Your task to perform on an android device: turn pop-ups off in chrome Image 0: 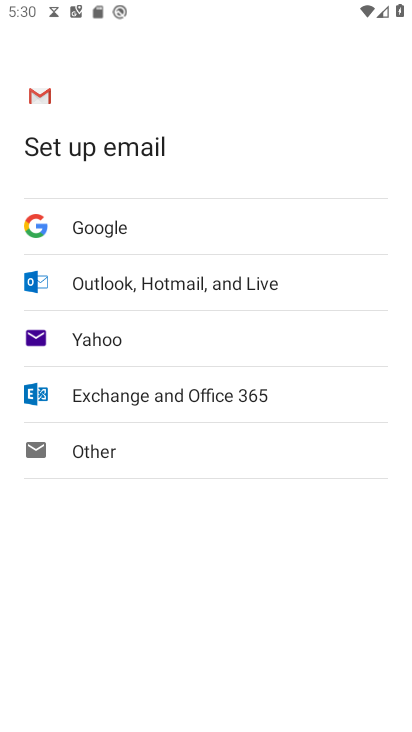
Step 0: press home button
Your task to perform on an android device: turn pop-ups off in chrome Image 1: 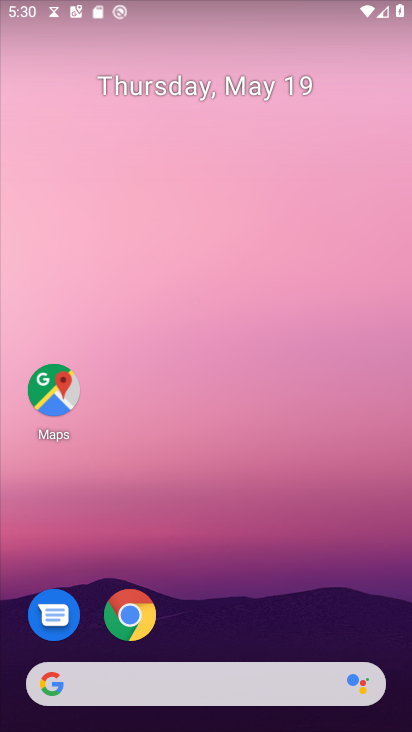
Step 1: drag from (259, 658) to (266, 14)
Your task to perform on an android device: turn pop-ups off in chrome Image 2: 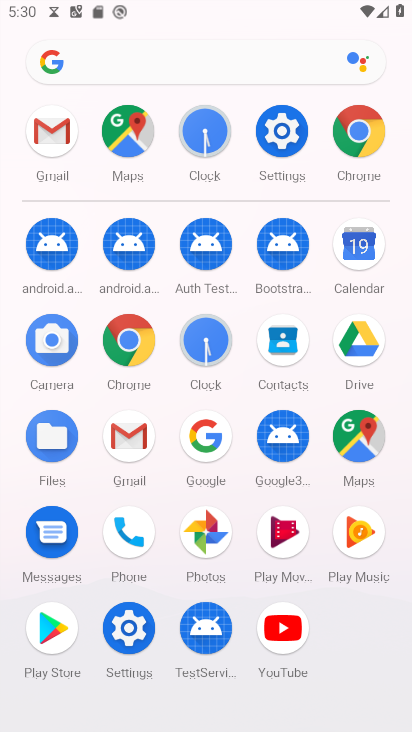
Step 2: click (124, 331)
Your task to perform on an android device: turn pop-ups off in chrome Image 3: 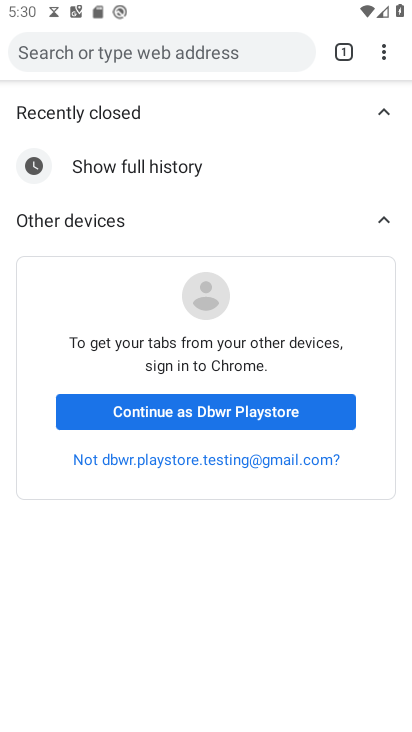
Step 3: drag from (380, 50) to (258, 439)
Your task to perform on an android device: turn pop-ups off in chrome Image 4: 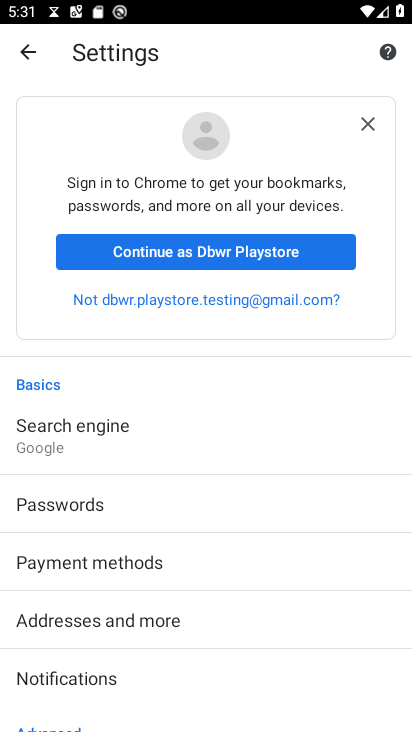
Step 4: drag from (132, 695) to (164, 181)
Your task to perform on an android device: turn pop-ups off in chrome Image 5: 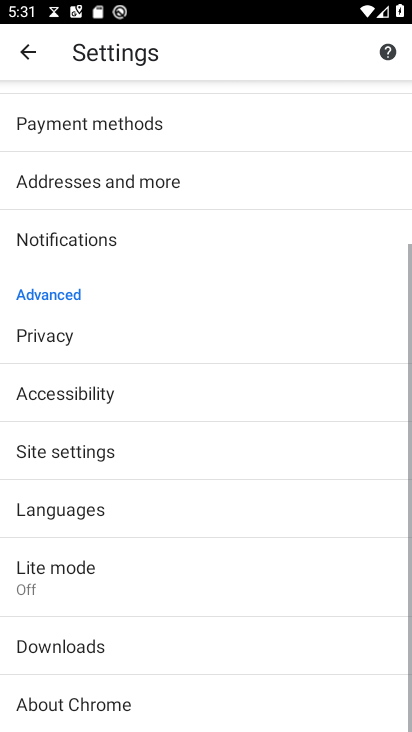
Step 5: click (89, 453)
Your task to perform on an android device: turn pop-ups off in chrome Image 6: 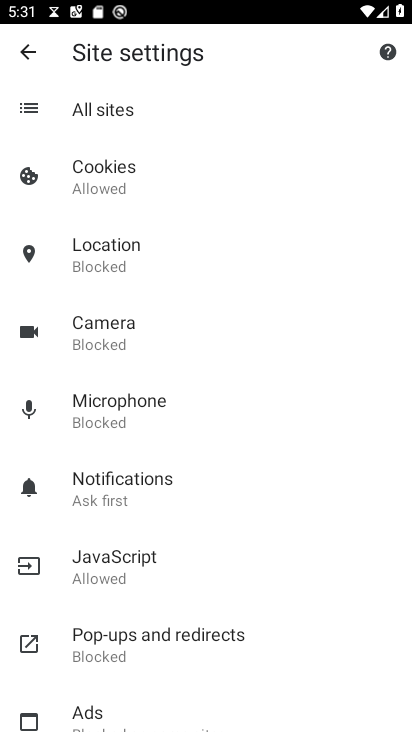
Step 6: click (158, 642)
Your task to perform on an android device: turn pop-ups off in chrome Image 7: 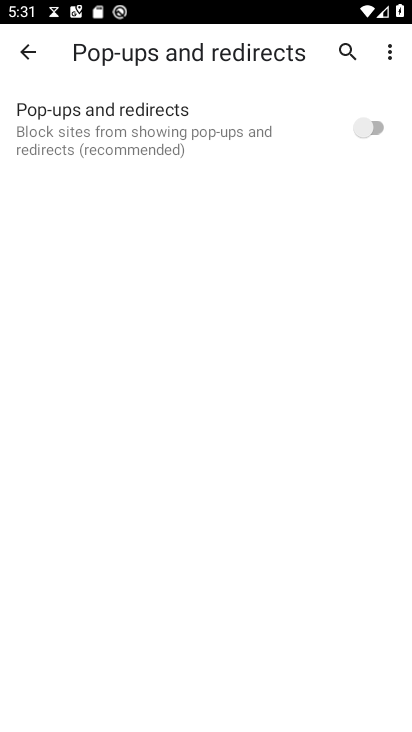
Step 7: task complete